Your task to perform on an android device: Go to ESPN.com Image 0: 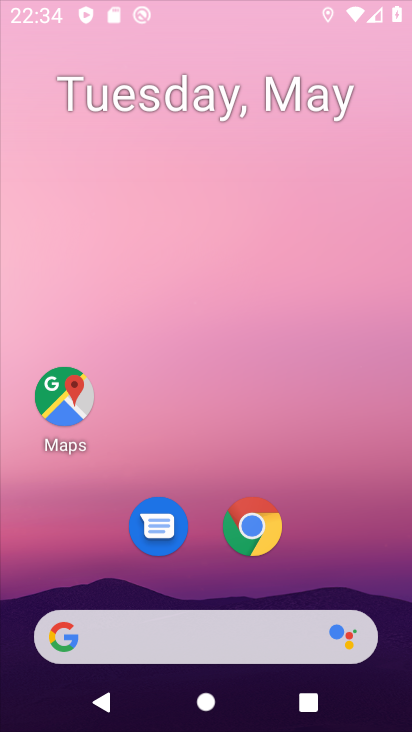
Step 0: click (257, 156)
Your task to perform on an android device: Go to ESPN.com Image 1: 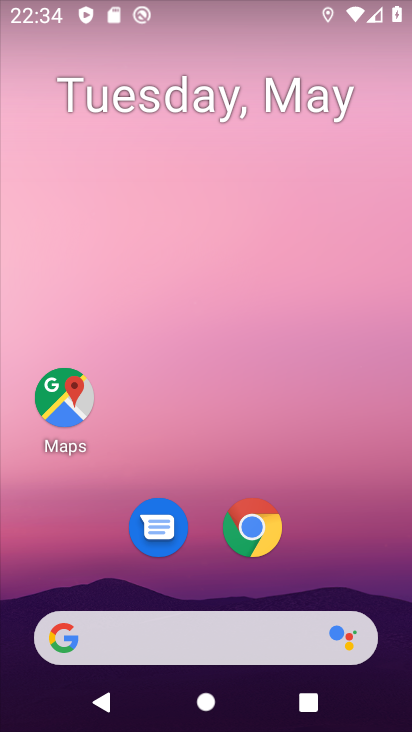
Step 1: drag from (225, 572) to (279, 157)
Your task to perform on an android device: Go to ESPN.com Image 2: 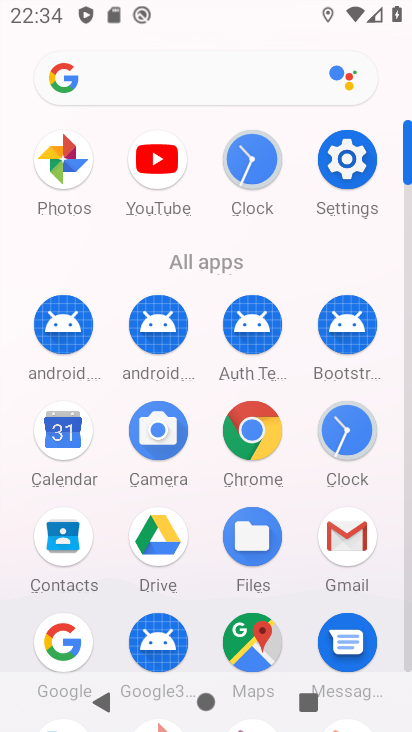
Step 2: click (211, 87)
Your task to perform on an android device: Go to ESPN.com Image 3: 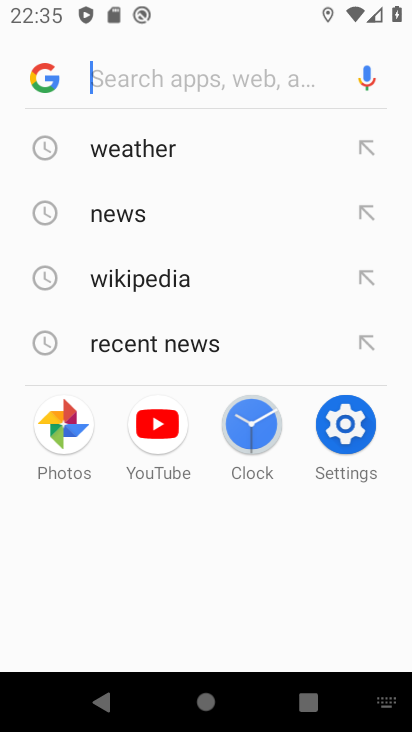
Step 3: click (132, 85)
Your task to perform on an android device: Go to ESPN.com Image 4: 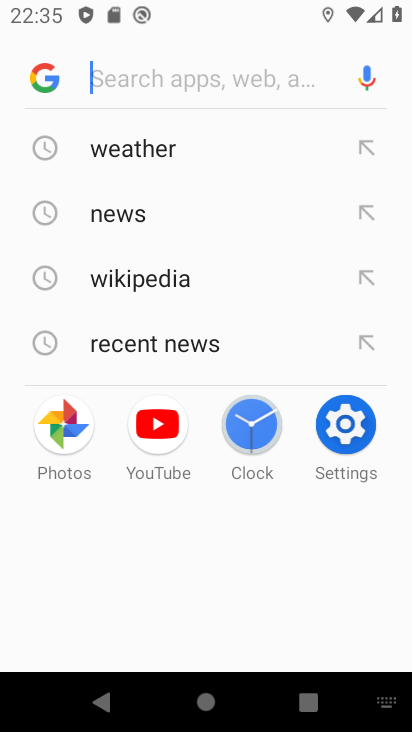
Step 4: type "ESPN.com"
Your task to perform on an android device: Go to ESPN.com Image 5: 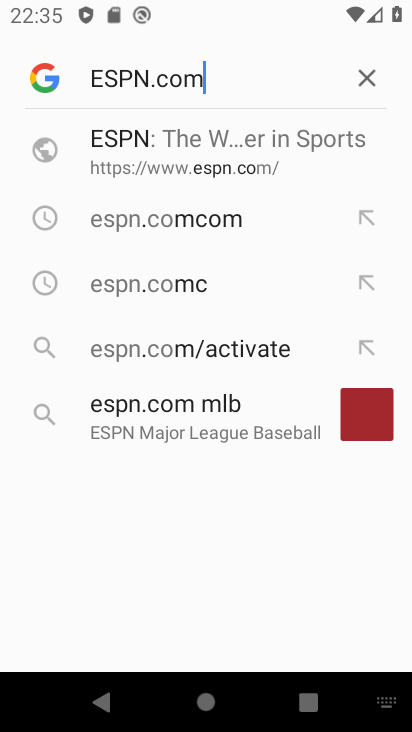
Step 5: type ""
Your task to perform on an android device: Go to ESPN.com Image 6: 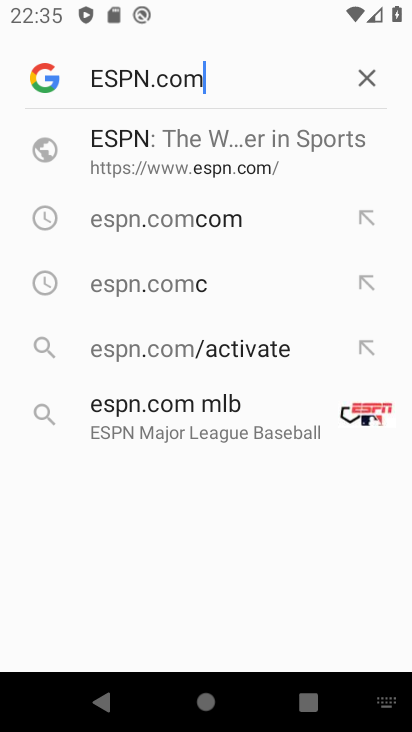
Step 6: click (158, 133)
Your task to perform on an android device: Go to ESPN.com Image 7: 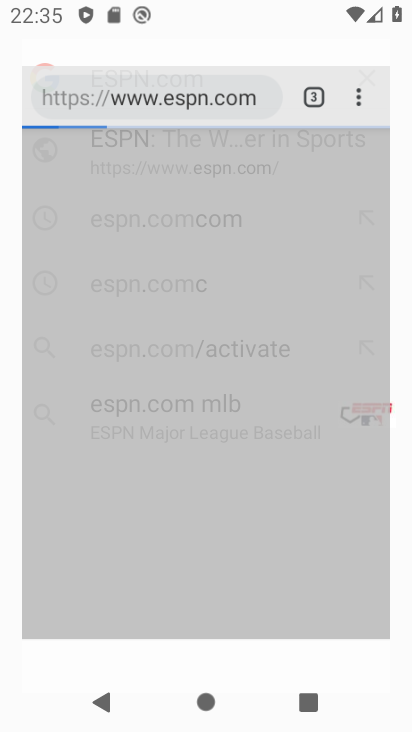
Step 7: task complete